Your task to perform on an android device: turn on improve location accuracy Image 0: 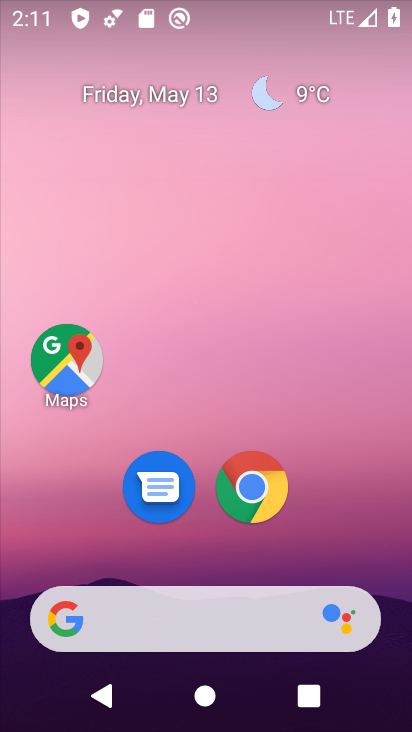
Step 0: drag from (206, 564) to (228, 165)
Your task to perform on an android device: turn on improve location accuracy Image 1: 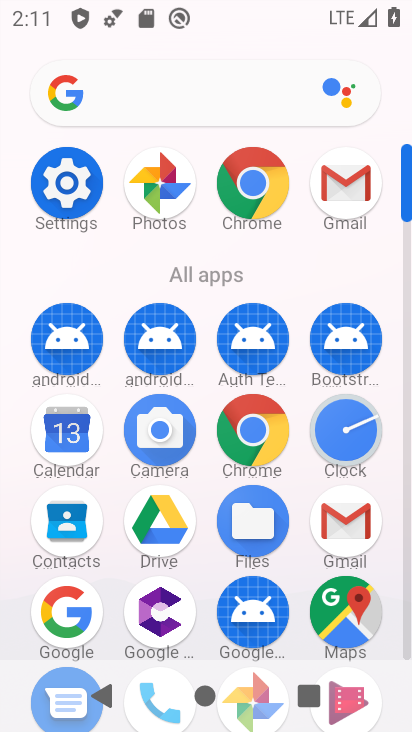
Step 1: click (70, 177)
Your task to perform on an android device: turn on improve location accuracy Image 2: 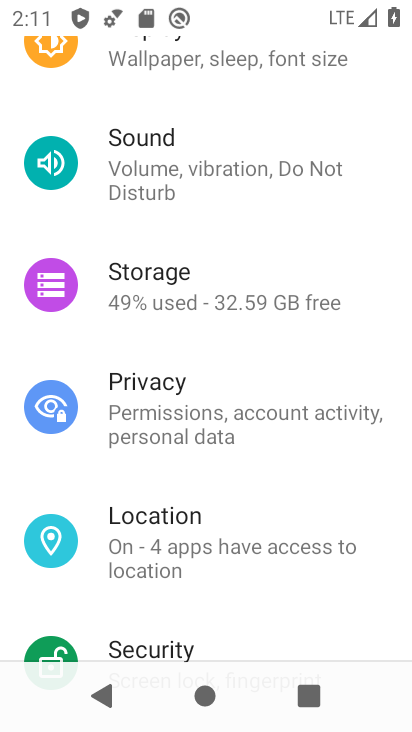
Step 2: drag from (201, 556) to (297, 531)
Your task to perform on an android device: turn on improve location accuracy Image 3: 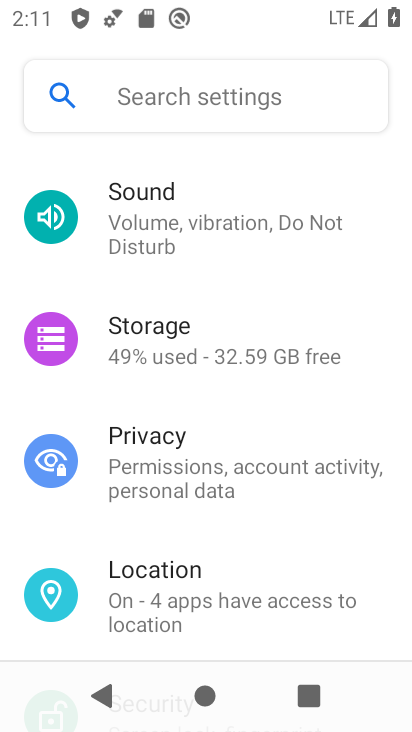
Step 3: click (204, 592)
Your task to perform on an android device: turn on improve location accuracy Image 4: 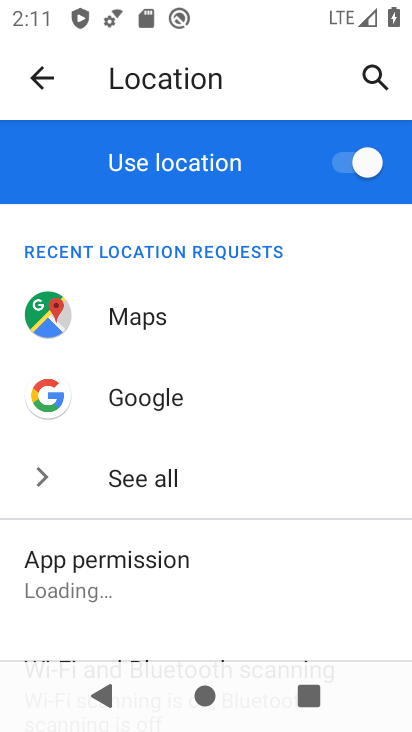
Step 4: drag from (268, 534) to (309, 252)
Your task to perform on an android device: turn on improve location accuracy Image 5: 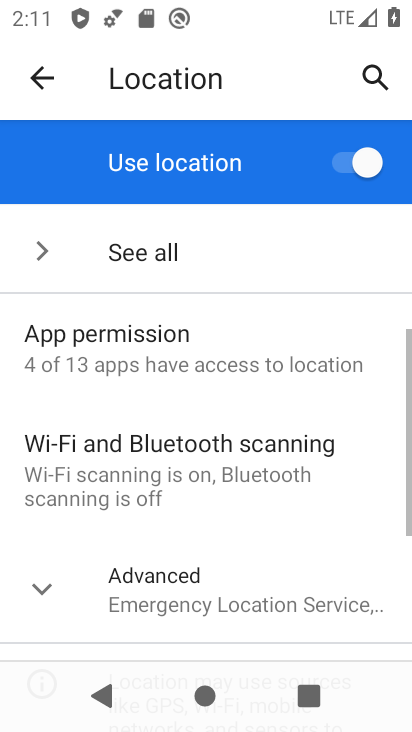
Step 5: drag from (247, 537) to (232, 347)
Your task to perform on an android device: turn on improve location accuracy Image 6: 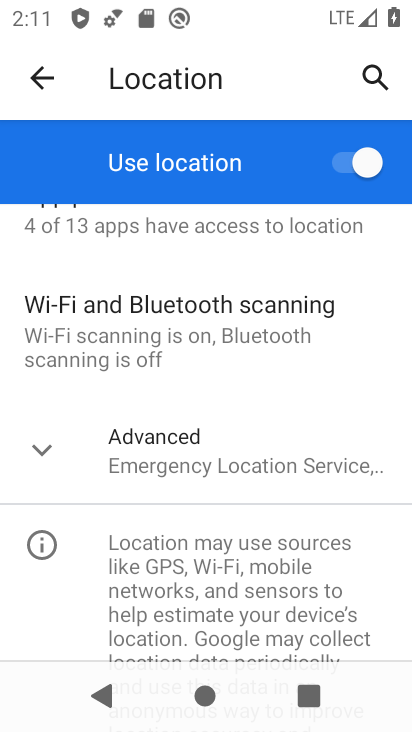
Step 6: click (213, 453)
Your task to perform on an android device: turn on improve location accuracy Image 7: 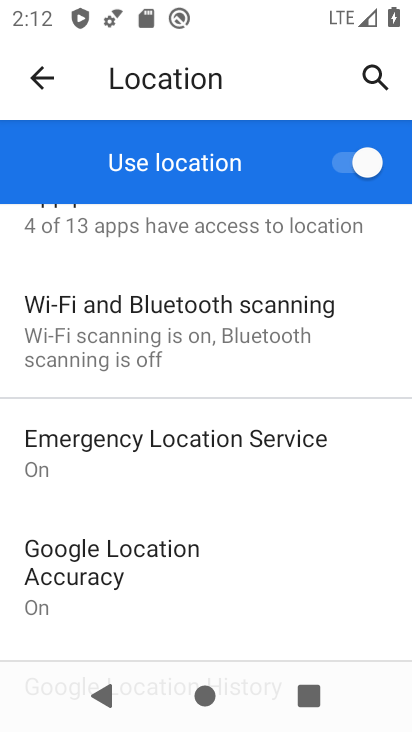
Step 7: click (116, 565)
Your task to perform on an android device: turn on improve location accuracy Image 8: 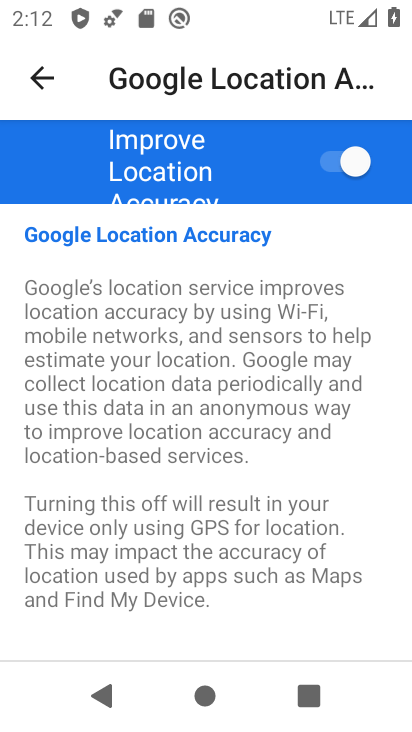
Step 8: task complete